Your task to perform on an android device: delete a single message in the gmail app Image 0: 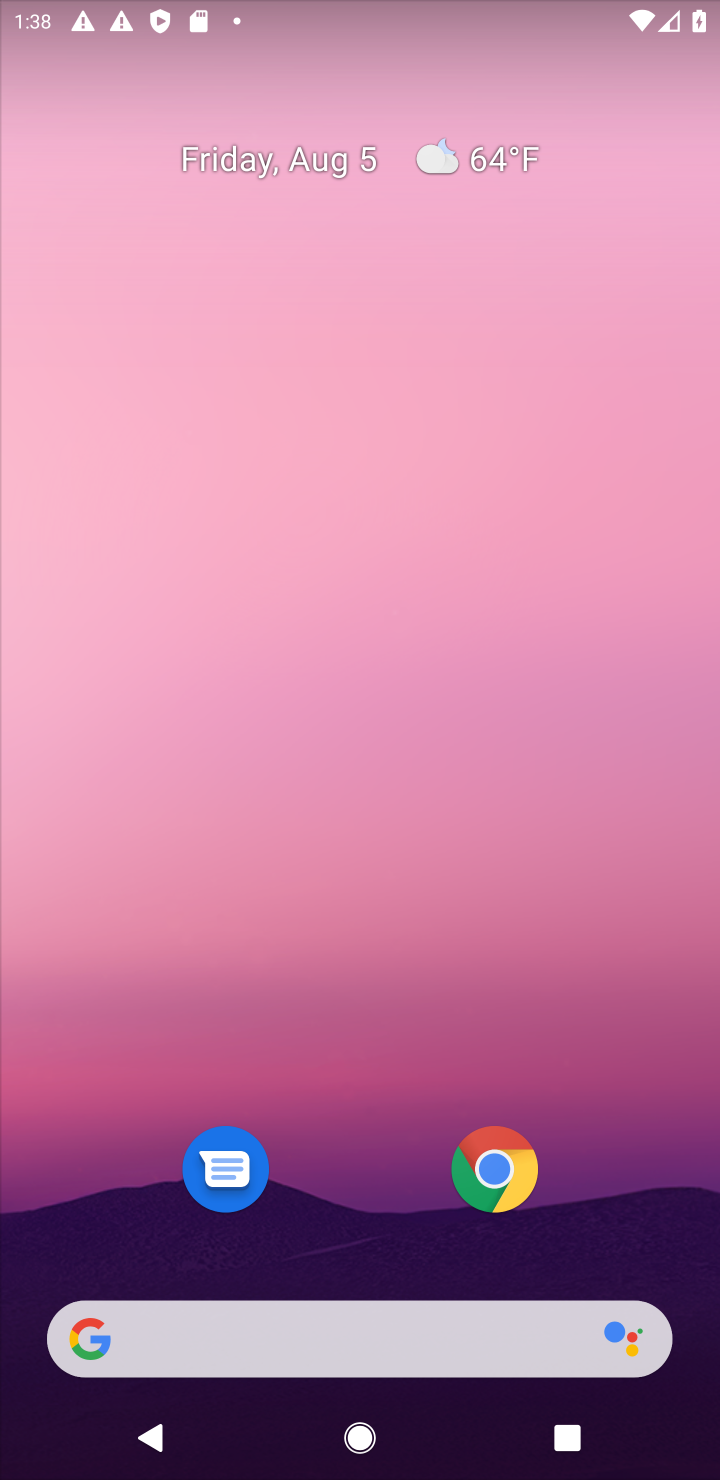
Step 0: drag from (387, 550) to (387, 126)
Your task to perform on an android device: delete a single message in the gmail app Image 1: 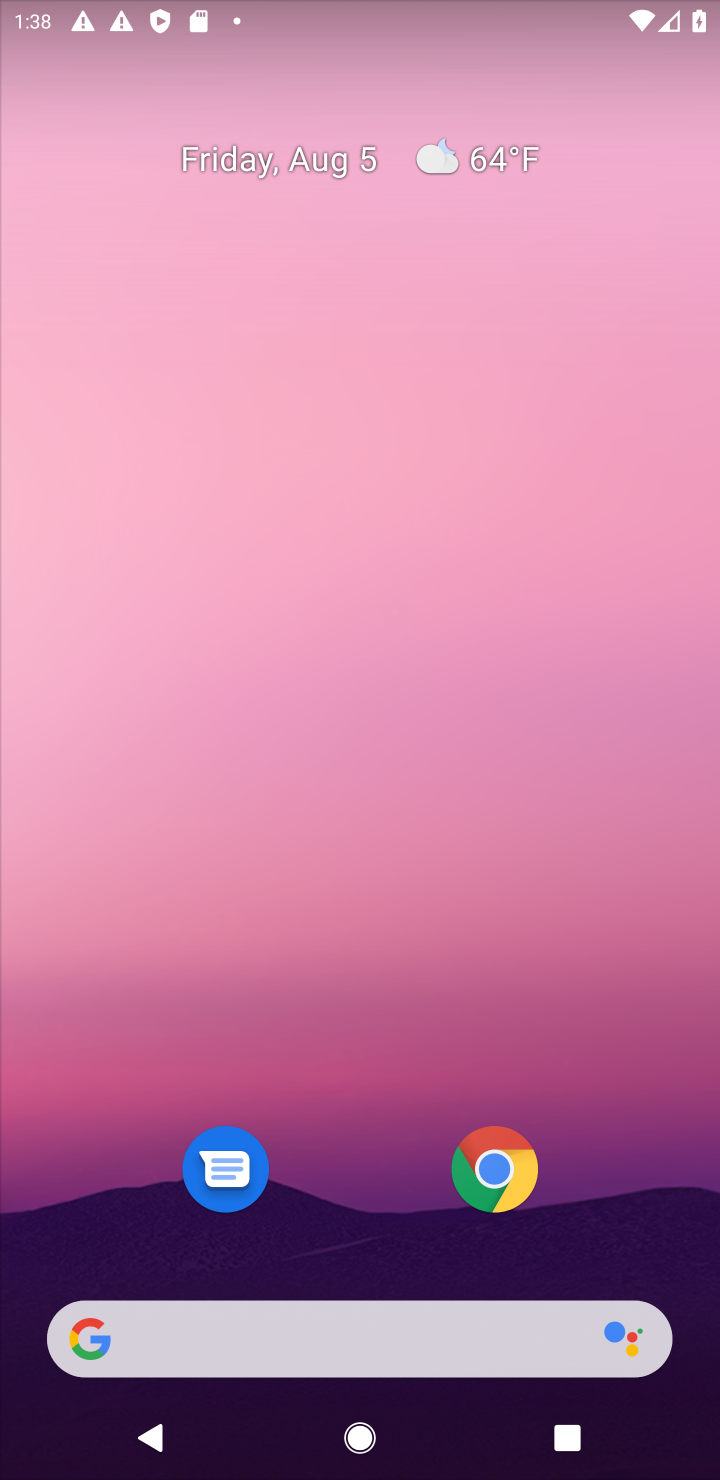
Step 1: drag from (407, 1140) to (417, 32)
Your task to perform on an android device: delete a single message in the gmail app Image 2: 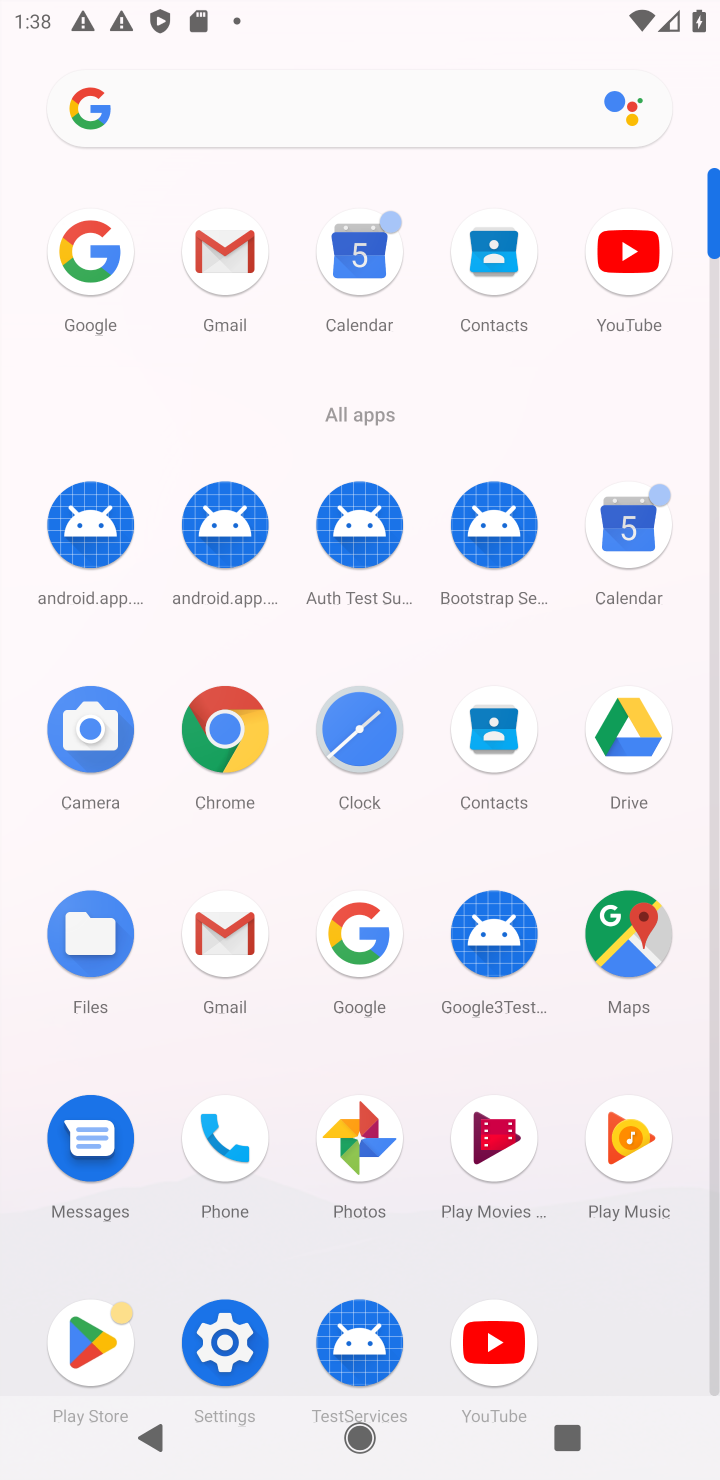
Step 2: click (241, 271)
Your task to perform on an android device: delete a single message in the gmail app Image 3: 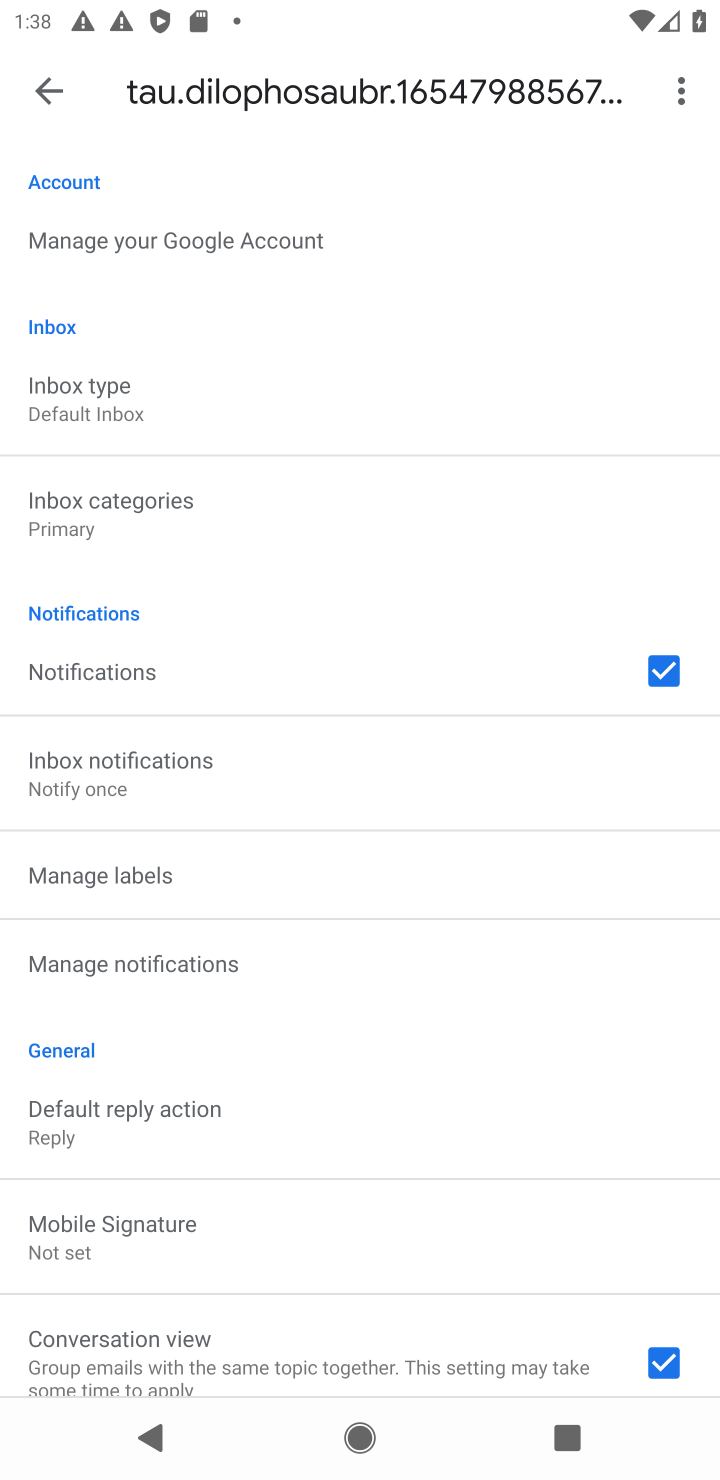
Step 3: click (44, 111)
Your task to perform on an android device: delete a single message in the gmail app Image 4: 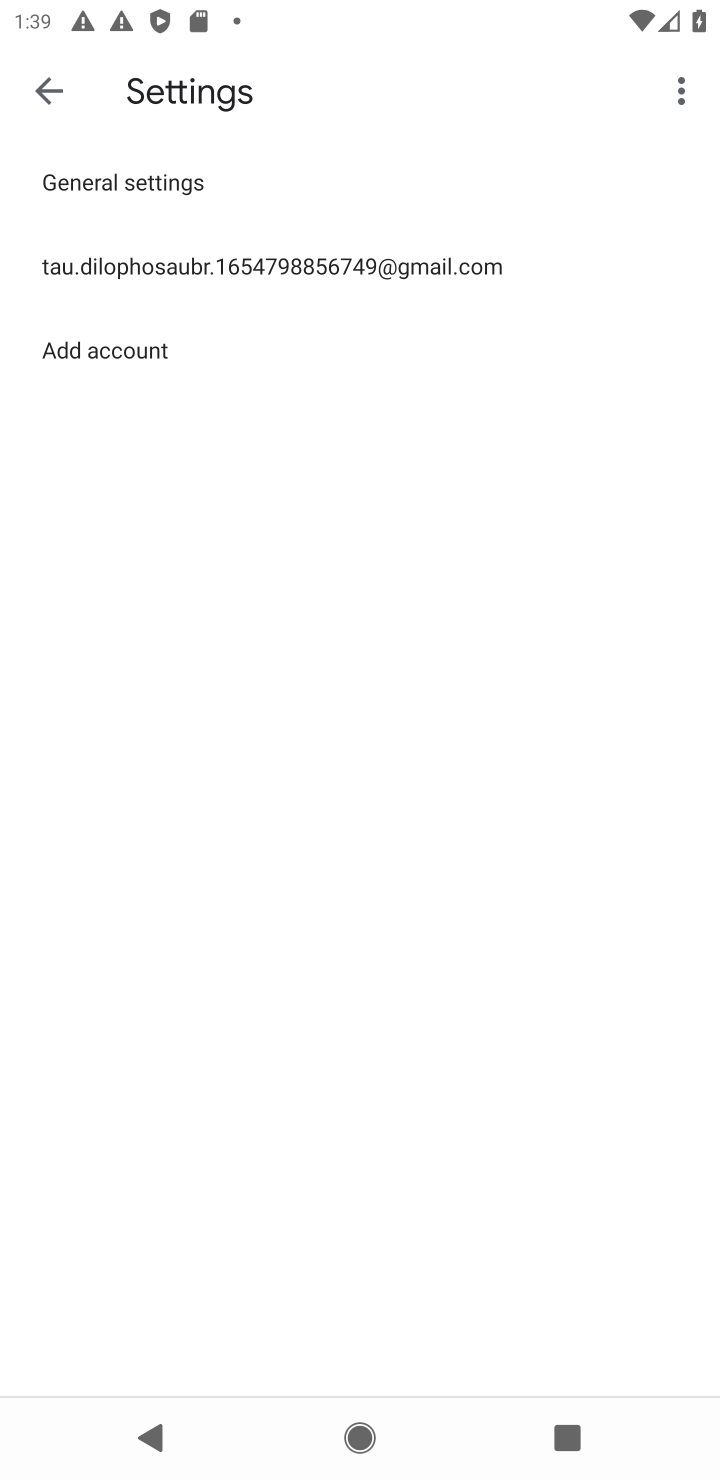
Step 4: click (44, 111)
Your task to perform on an android device: delete a single message in the gmail app Image 5: 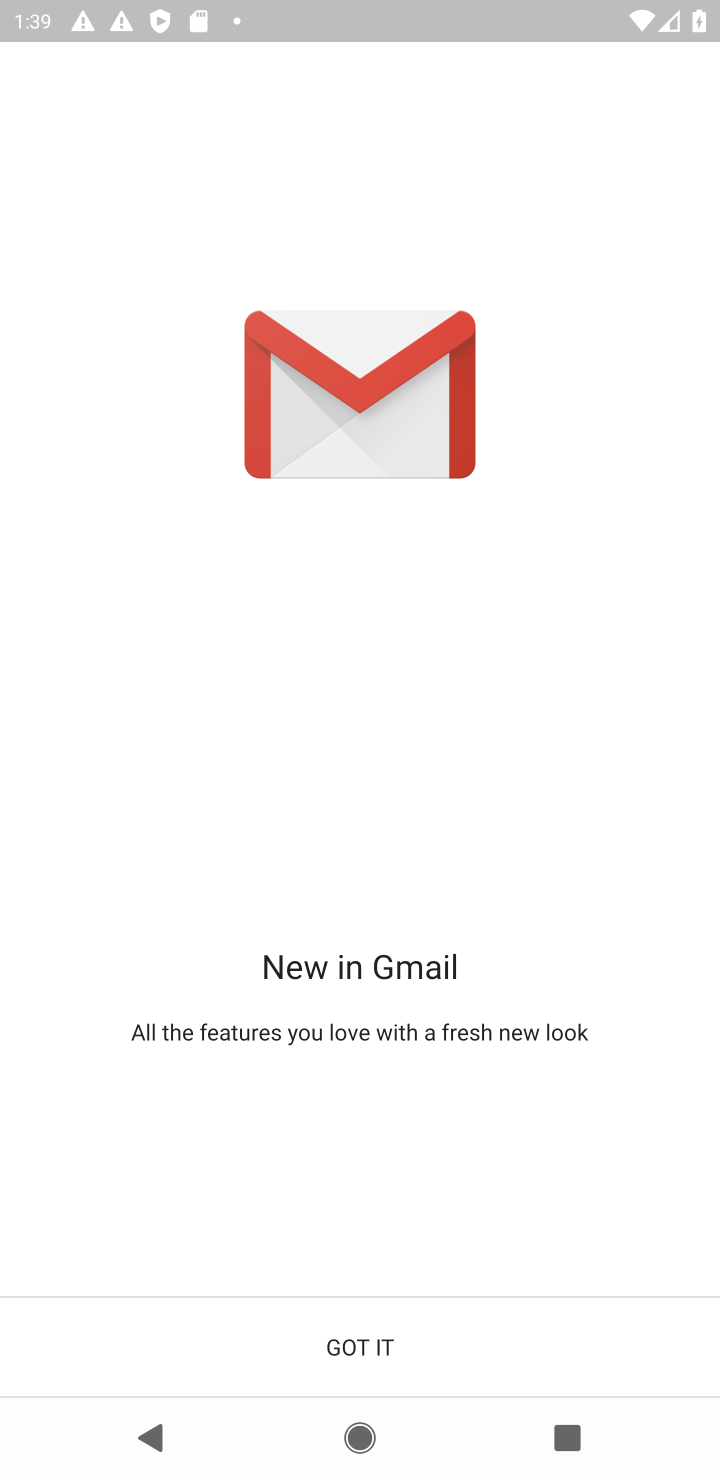
Step 5: click (409, 1320)
Your task to perform on an android device: delete a single message in the gmail app Image 6: 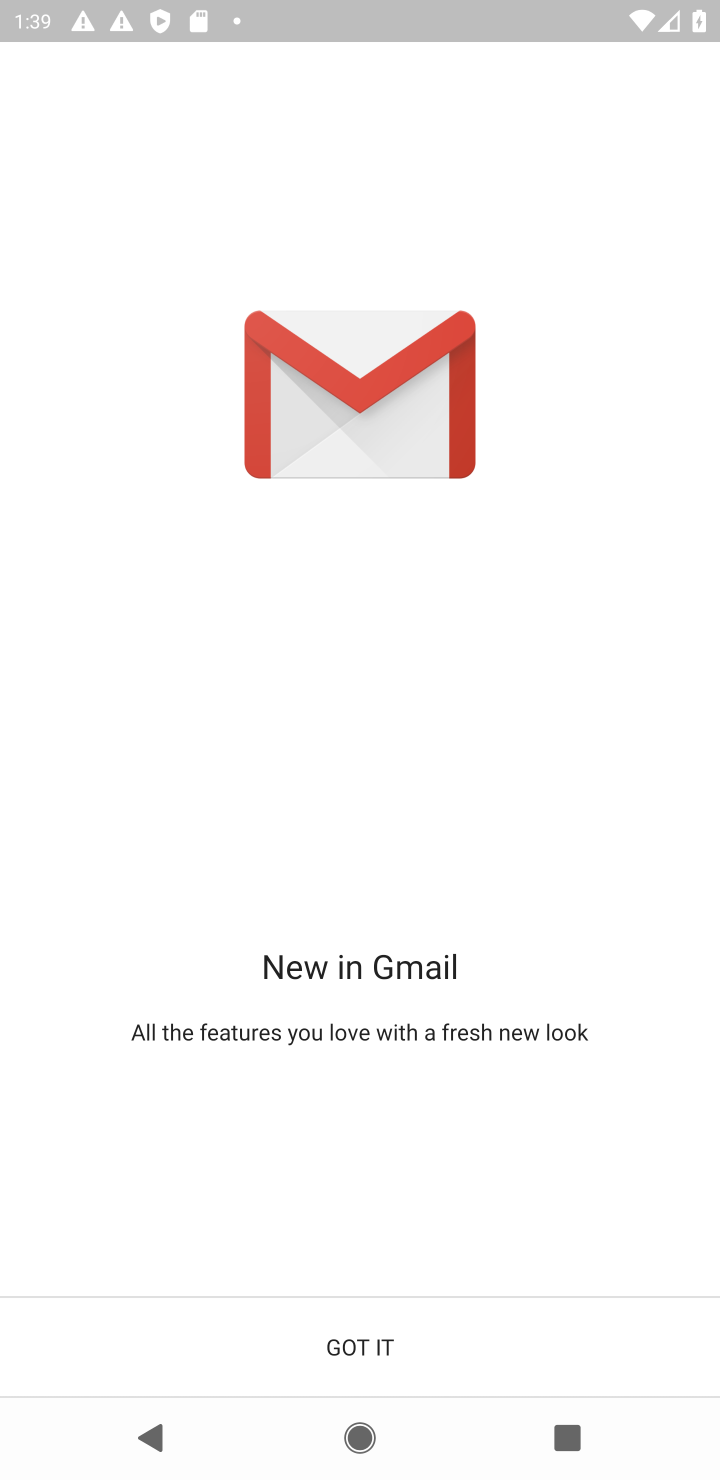
Step 6: click (464, 1314)
Your task to perform on an android device: delete a single message in the gmail app Image 7: 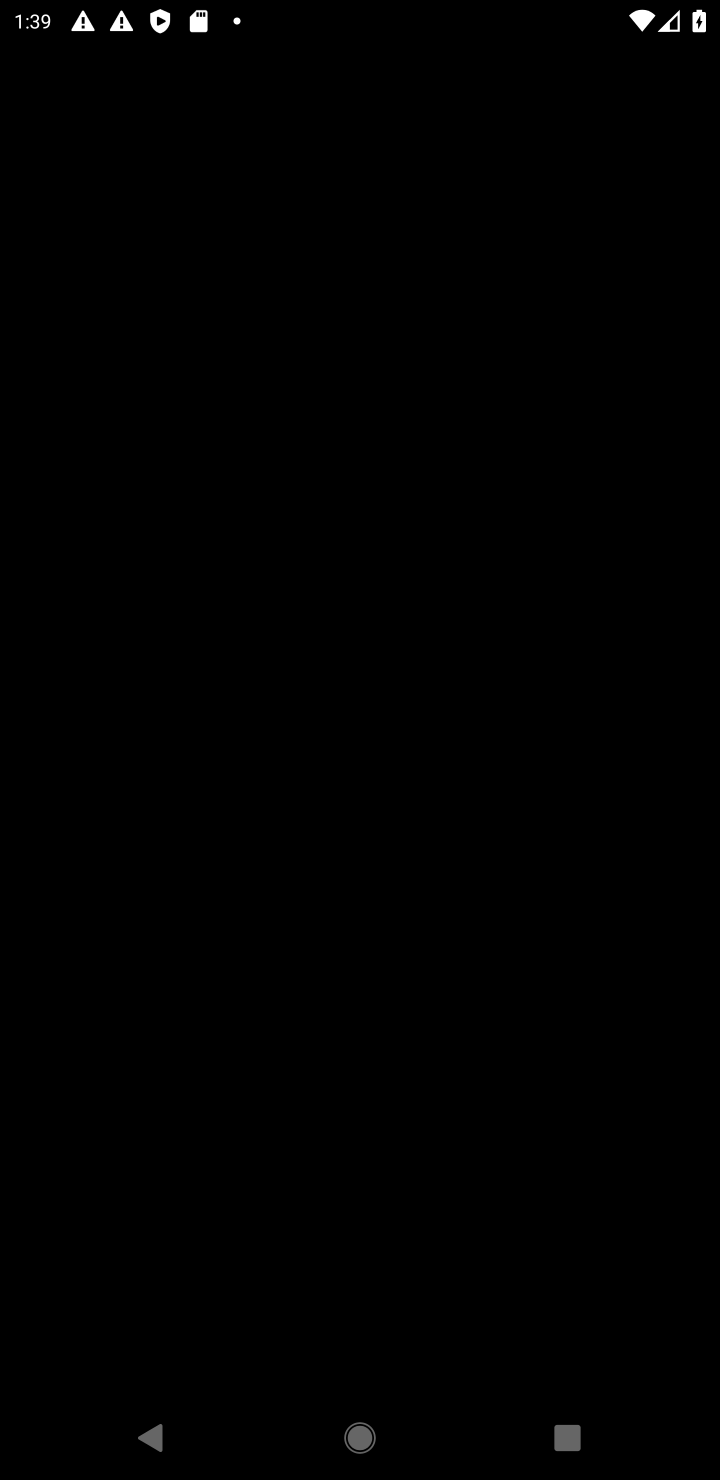
Step 7: task complete